Your task to perform on an android device: visit the assistant section in the google photos Image 0: 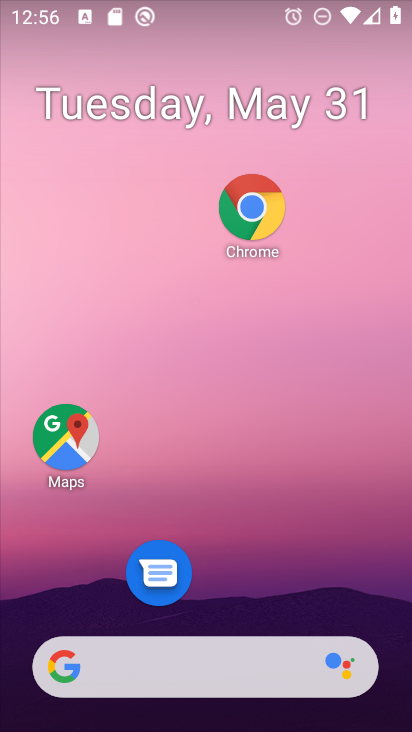
Step 0: drag from (277, 632) to (256, 259)
Your task to perform on an android device: visit the assistant section in the google photos Image 1: 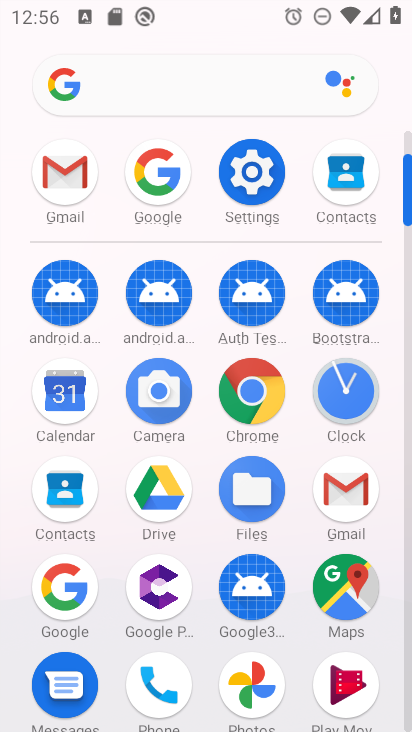
Step 1: drag from (266, 521) to (264, 215)
Your task to perform on an android device: visit the assistant section in the google photos Image 2: 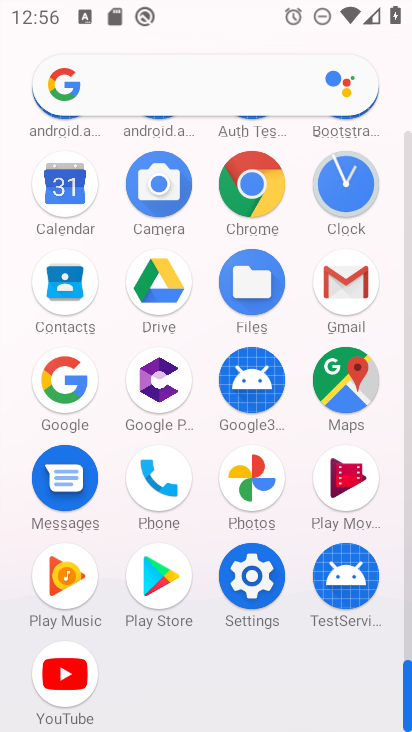
Step 2: click (257, 499)
Your task to perform on an android device: visit the assistant section in the google photos Image 3: 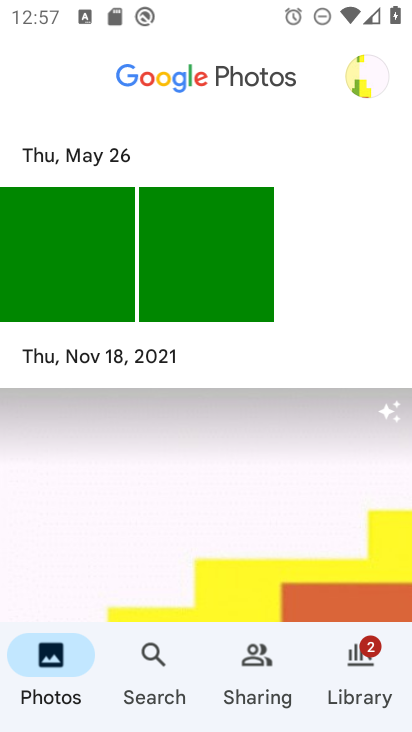
Step 3: click (41, 72)
Your task to perform on an android device: visit the assistant section in the google photos Image 4: 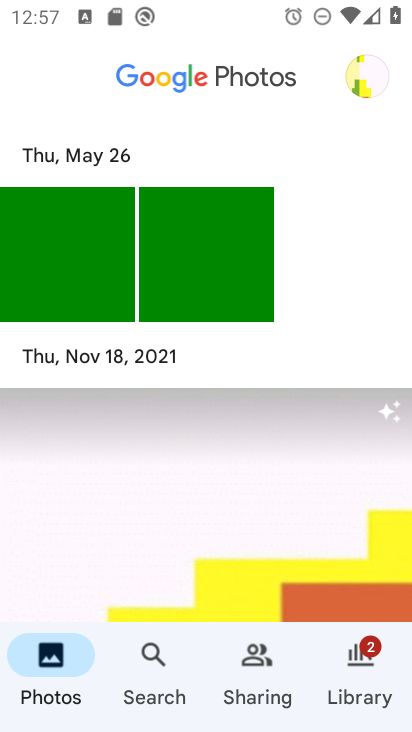
Step 4: click (368, 80)
Your task to perform on an android device: visit the assistant section in the google photos Image 5: 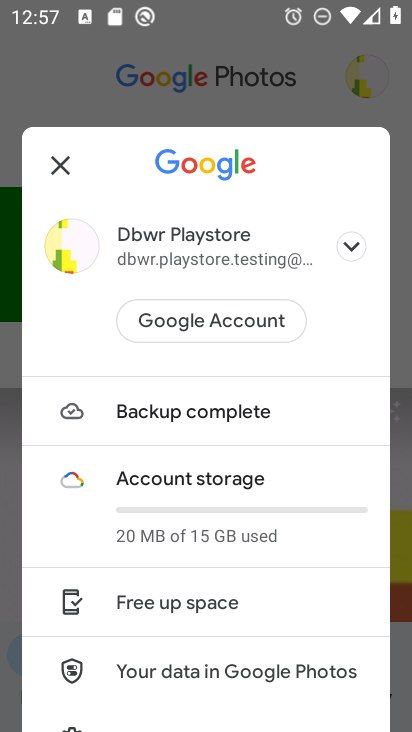
Step 5: task complete